Your task to perform on an android device: Go to Wikipedia Image 0: 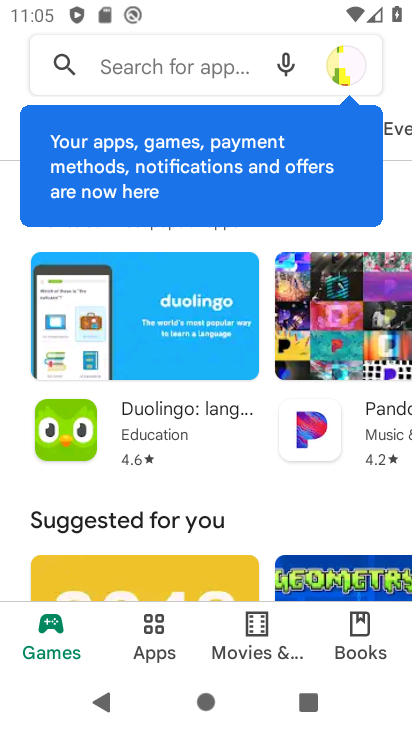
Step 0: press home button
Your task to perform on an android device: Go to Wikipedia Image 1: 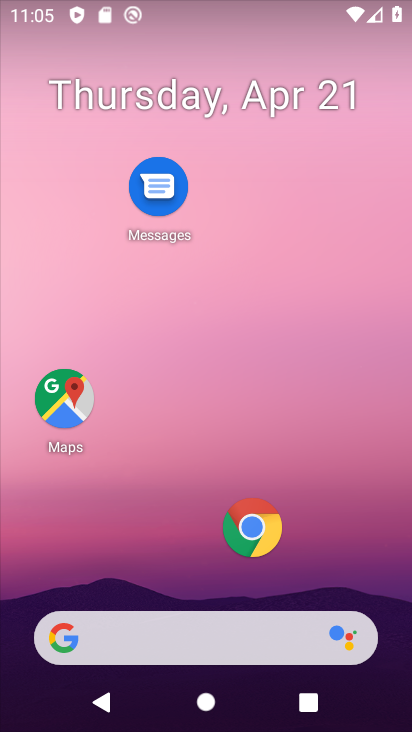
Step 1: click (264, 519)
Your task to perform on an android device: Go to Wikipedia Image 2: 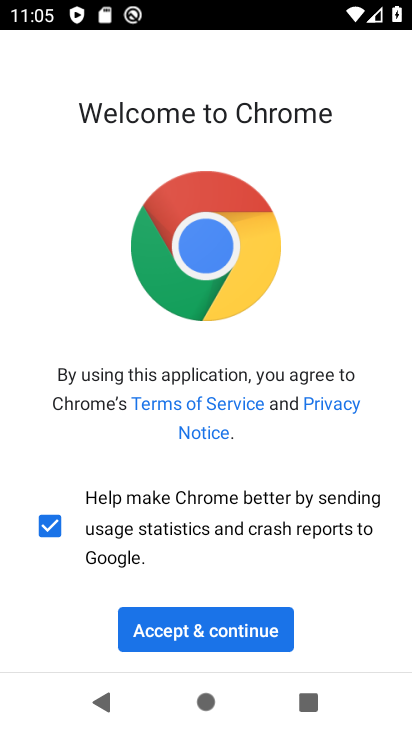
Step 2: click (208, 626)
Your task to perform on an android device: Go to Wikipedia Image 3: 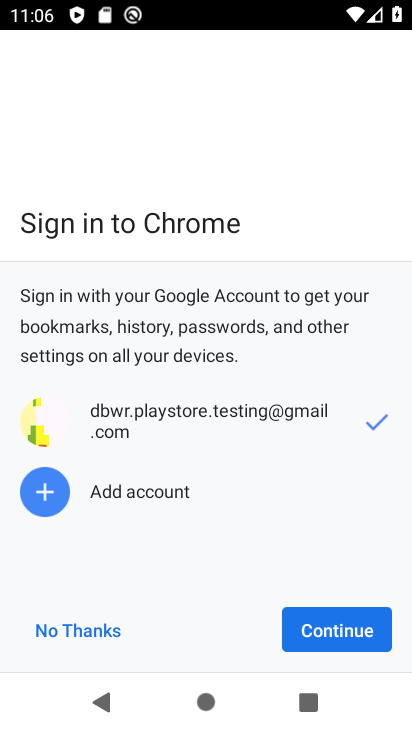
Step 3: click (291, 622)
Your task to perform on an android device: Go to Wikipedia Image 4: 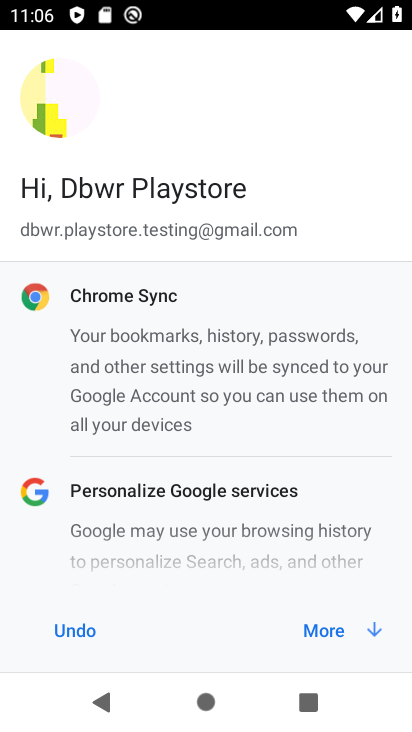
Step 4: click (354, 630)
Your task to perform on an android device: Go to Wikipedia Image 5: 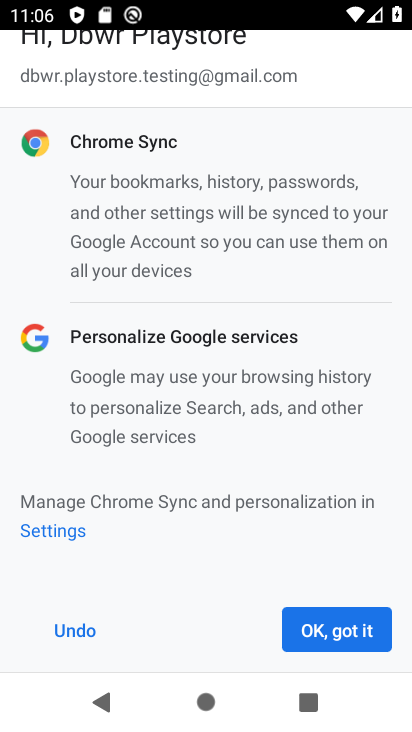
Step 5: click (323, 625)
Your task to perform on an android device: Go to Wikipedia Image 6: 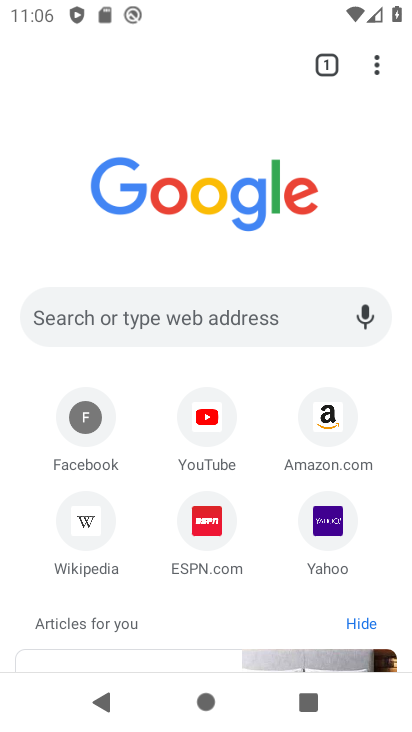
Step 6: click (80, 535)
Your task to perform on an android device: Go to Wikipedia Image 7: 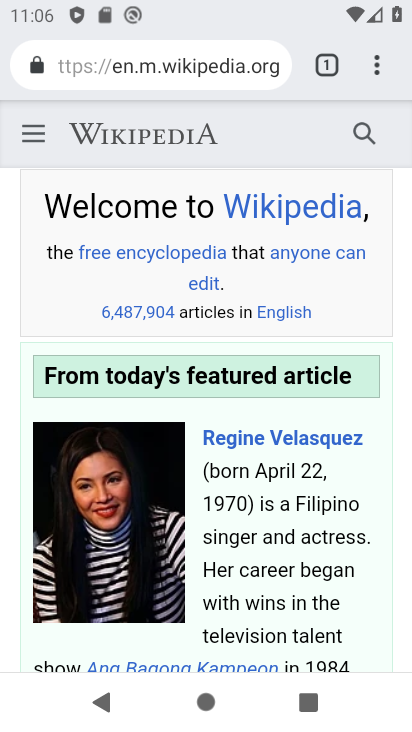
Step 7: task complete